Your task to perform on an android device: move a message to another label in the gmail app Image 0: 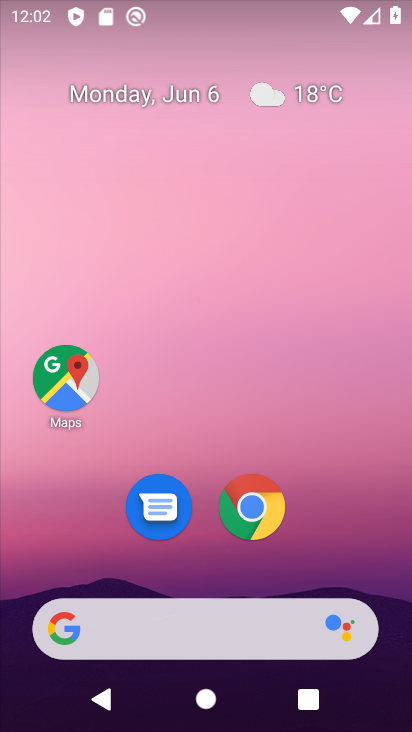
Step 0: drag from (209, 581) to (253, 8)
Your task to perform on an android device: move a message to another label in the gmail app Image 1: 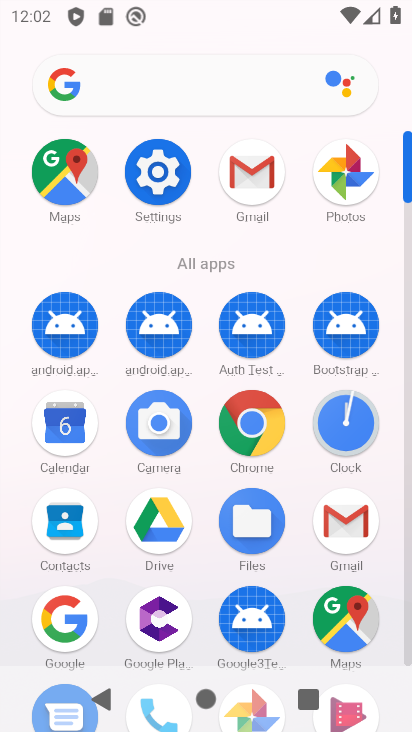
Step 1: click (351, 536)
Your task to perform on an android device: move a message to another label in the gmail app Image 2: 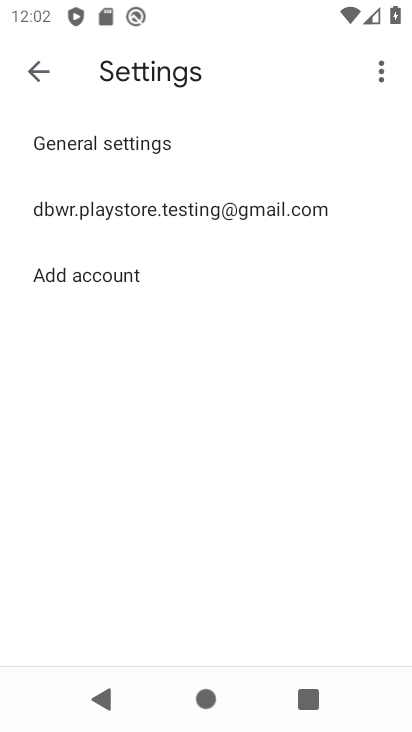
Step 2: click (39, 66)
Your task to perform on an android device: move a message to another label in the gmail app Image 3: 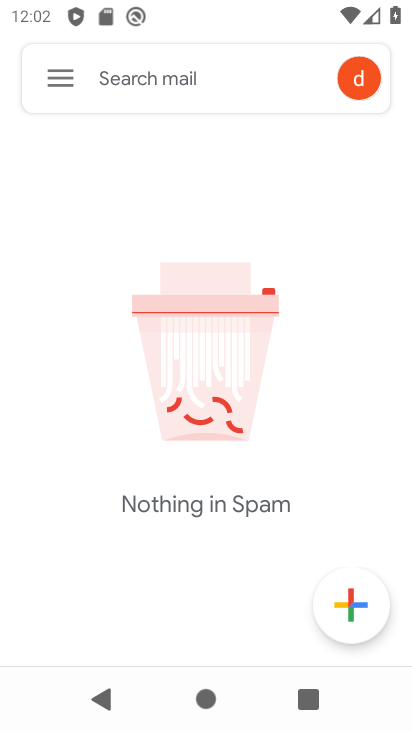
Step 3: click (41, 71)
Your task to perform on an android device: move a message to another label in the gmail app Image 4: 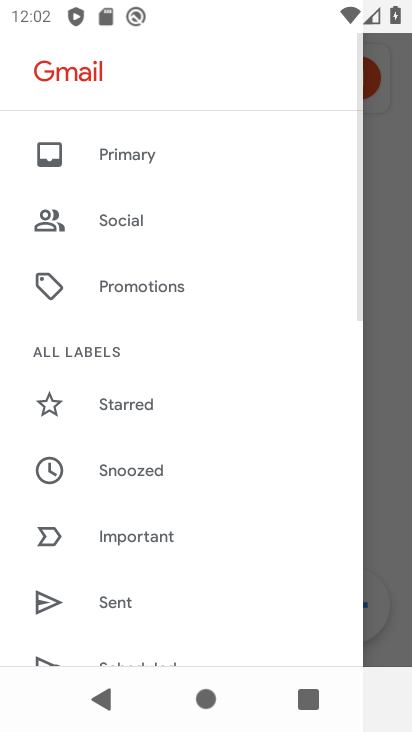
Step 4: drag from (143, 546) to (152, 264)
Your task to perform on an android device: move a message to another label in the gmail app Image 5: 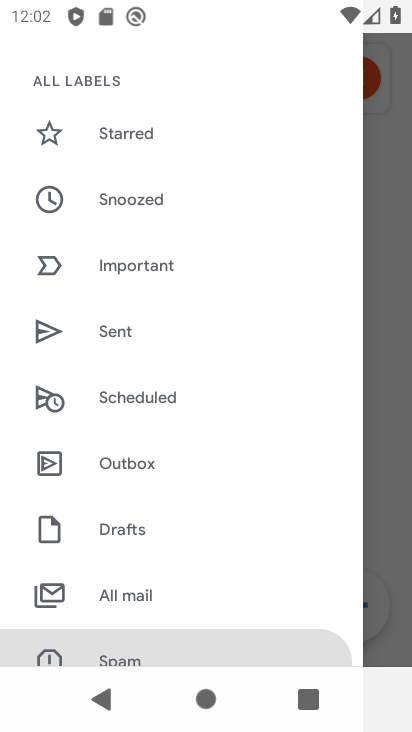
Step 5: click (149, 591)
Your task to perform on an android device: move a message to another label in the gmail app Image 6: 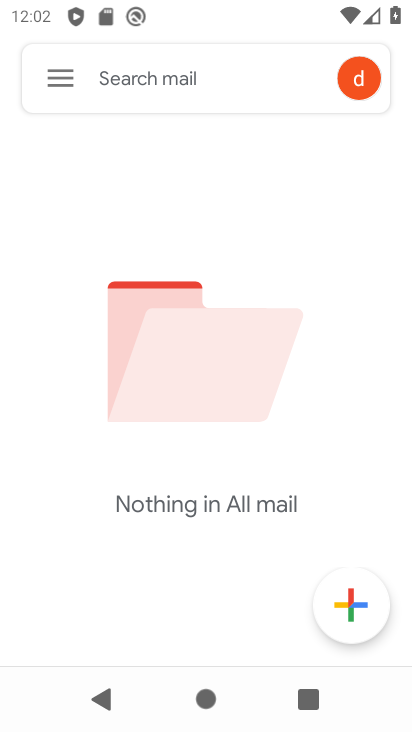
Step 6: task complete